Your task to perform on an android device: toggle javascript in the chrome app Image 0: 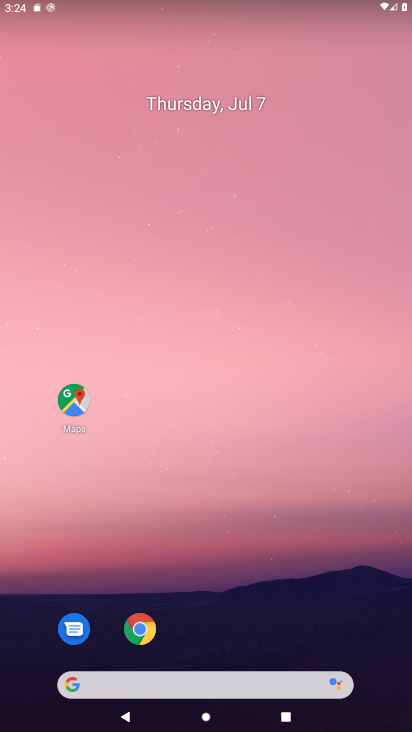
Step 0: press home button
Your task to perform on an android device: toggle javascript in the chrome app Image 1: 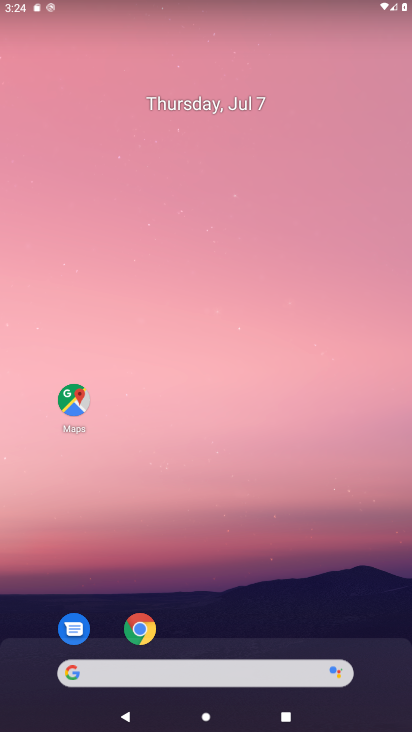
Step 1: click (135, 625)
Your task to perform on an android device: toggle javascript in the chrome app Image 2: 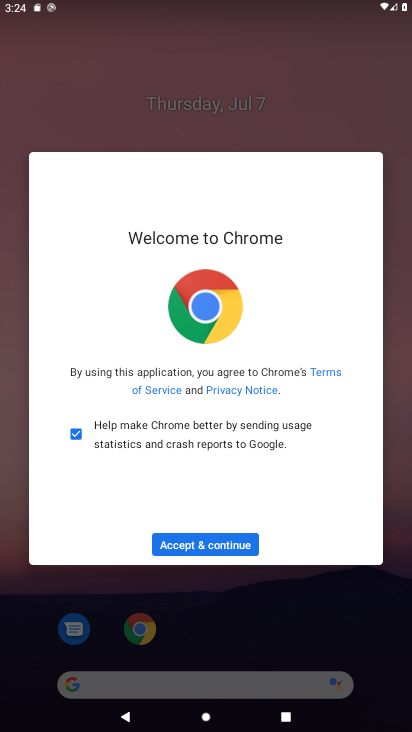
Step 2: click (181, 537)
Your task to perform on an android device: toggle javascript in the chrome app Image 3: 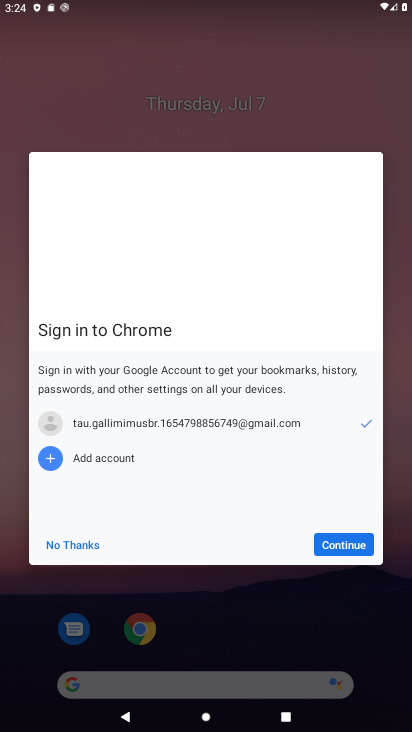
Step 3: click (349, 543)
Your task to perform on an android device: toggle javascript in the chrome app Image 4: 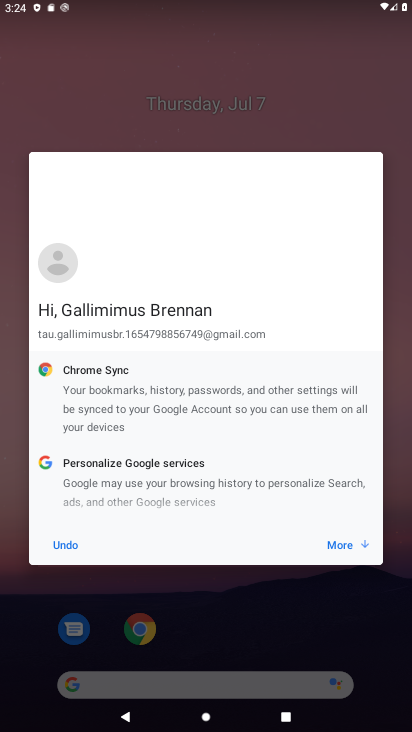
Step 4: click (356, 547)
Your task to perform on an android device: toggle javascript in the chrome app Image 5: 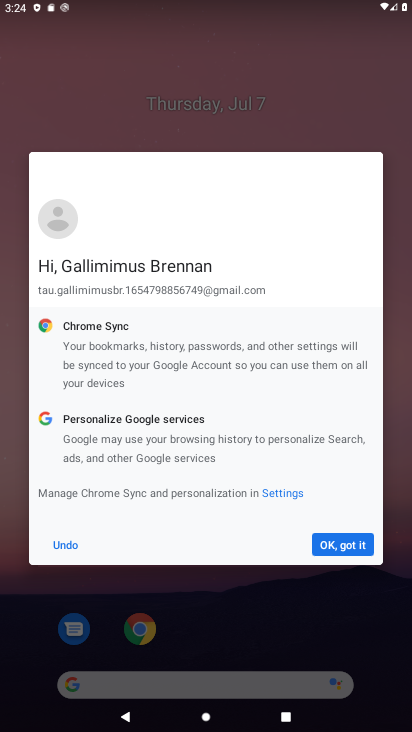
Step 5: click (357, 547)
Your task to perform on an android device: toggle javascript in the chrome app Image 6: 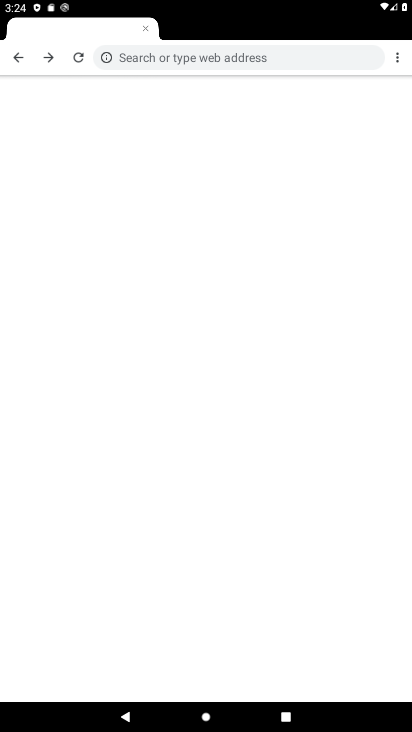
Step 6: click (395, 60)
Your task to perform on an android device: toggle javascript in the chrome app Image 7: 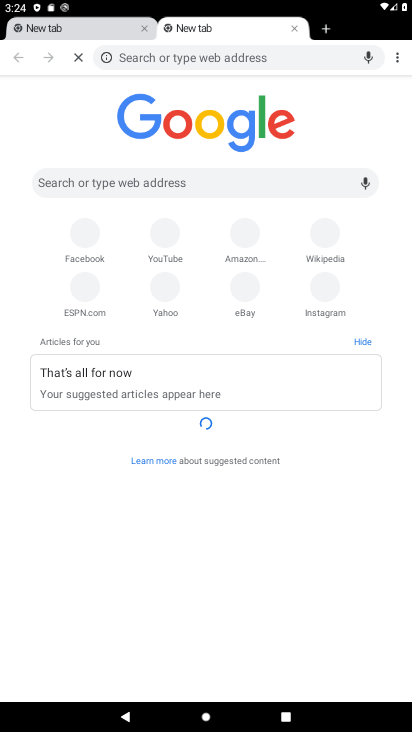
Step 7: drag from (395, 60) to (282, 264)
Your task to perform on an android device: toggle javascript in the chrome app Image 8: 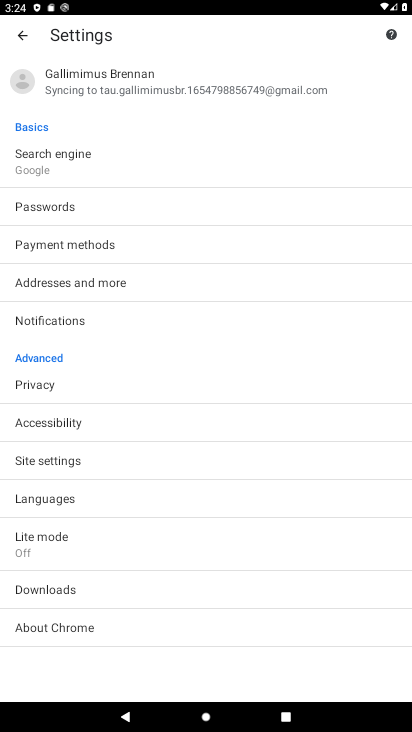
Step 8: click (47, 459)
Your task to perform on an android device: toggle javascript in the chrome app Image 9: 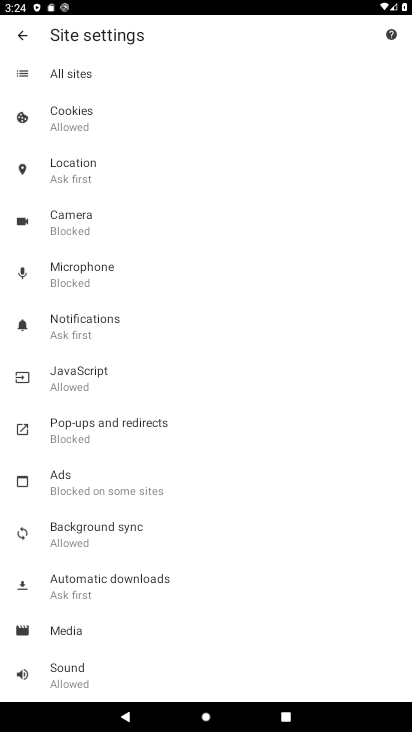
Step 9: click (91, 381)
Your task to perform on an android device: toggle javascript in the chrome app Image 10: 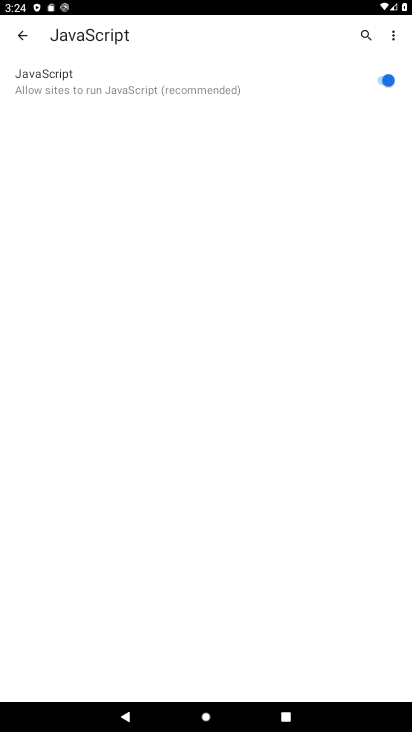
Step 10: click (383, 81)
Your task to perform on an android device: toggle javascript in the chrome app Image 11: 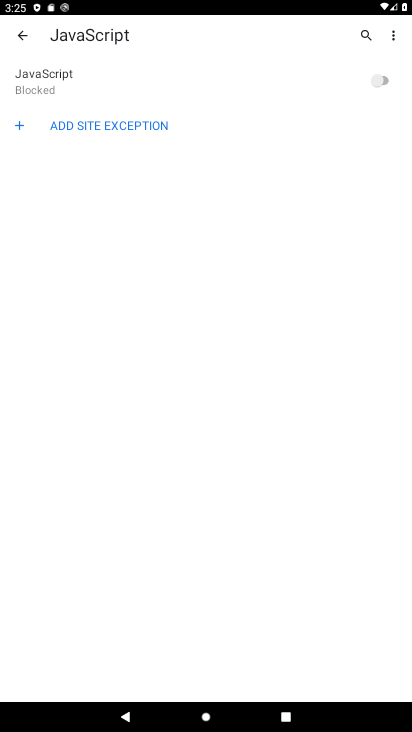
Step 11: task complete